Your task to perform on an android device: toggle pop-ups in chrome Image 0: 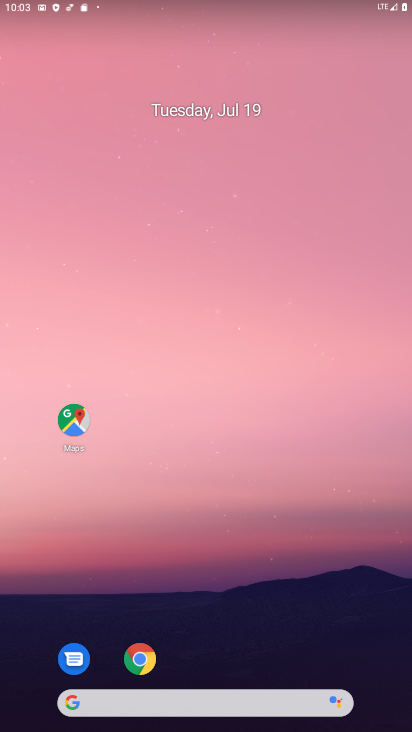
Step 0: task complete